Your task to perform on an android device: Open Chrome and go to settings Image 0: 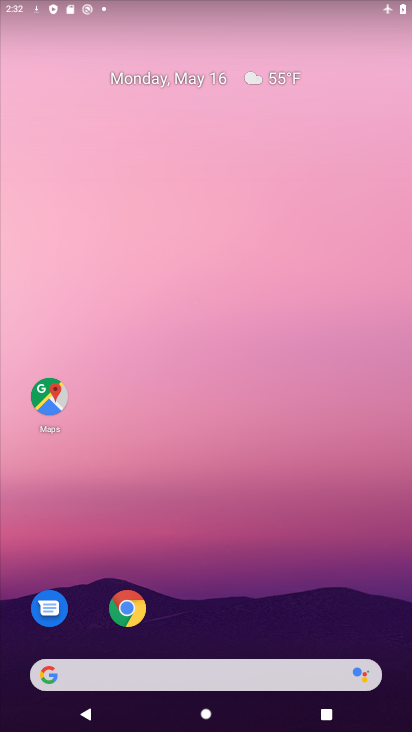
Step 0: click (120, 589)
Your task to perform on an android device: Open Chrome and go to settings Image 1: 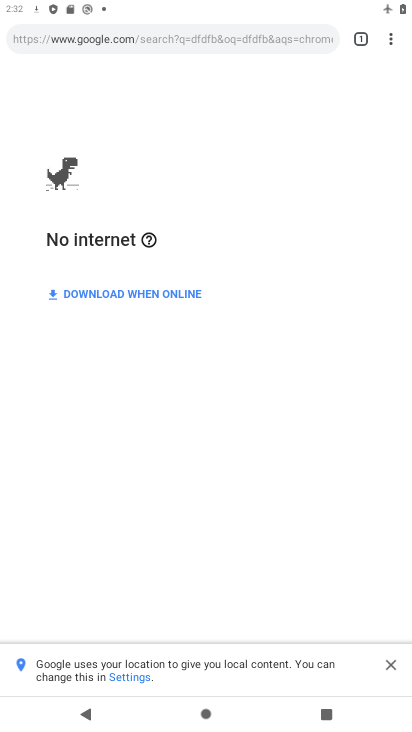
Step 1: click (383, 31)
Your task to perform on an android device: Open Chrome and go to settings Image 2: 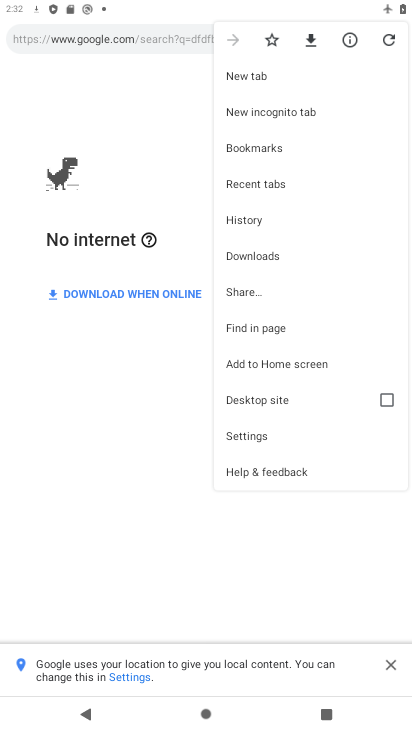
Step 2: click (278, 428)
Your task to perform on an android device: Open Chrome and go to settings Image 3: 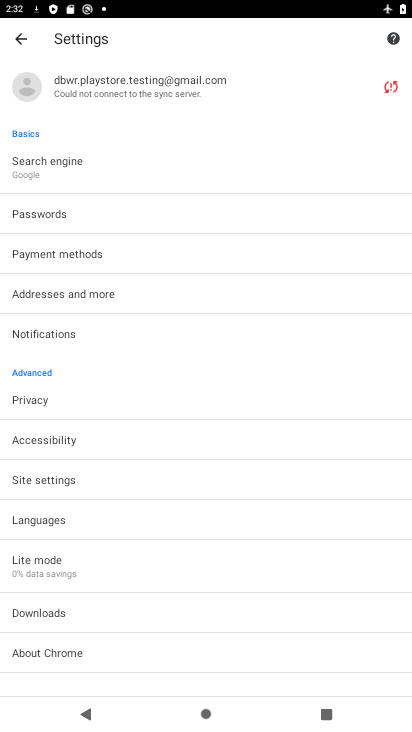
Step 3: task complete